Your task to perform on an android device: find which apps use the phone's location Image 0: 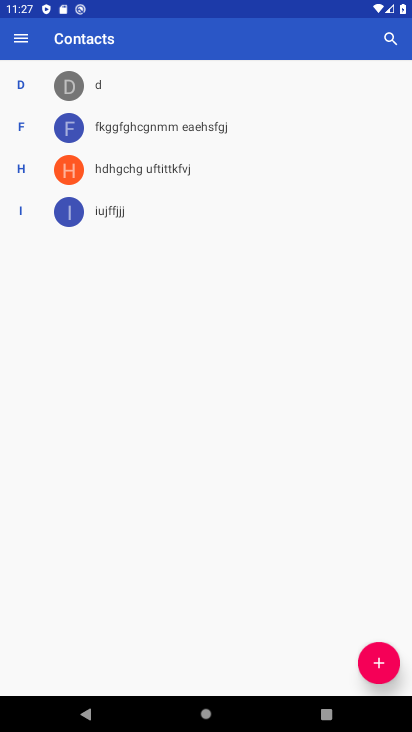
Step 0: press home button
Your task to perform on an android device: find which apps use the phone's location Image 1: 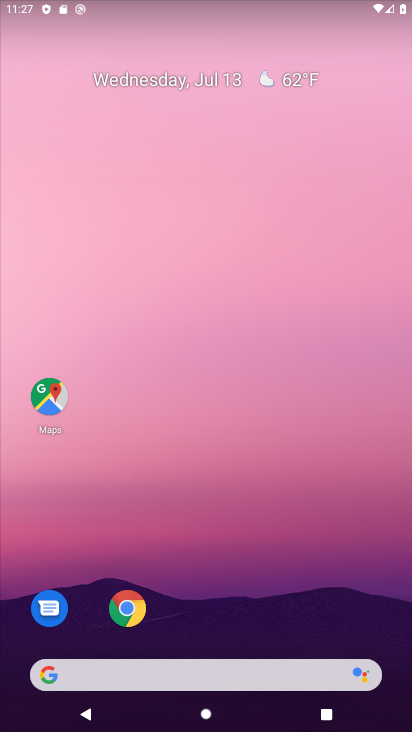
Step 1: drag from (239, 689) to (245, 140)
Your task to perform on an android device: find which apps use the phone's location Image 2: 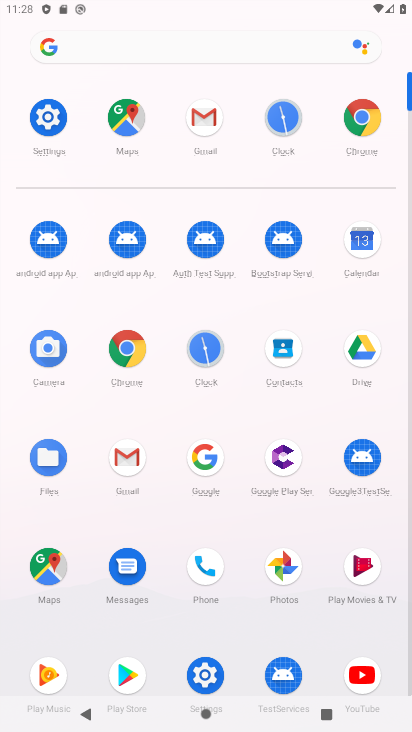
Step 2: click (43, 119)
Your task to perform on an android device: find which apps use the phone's location Image 3: 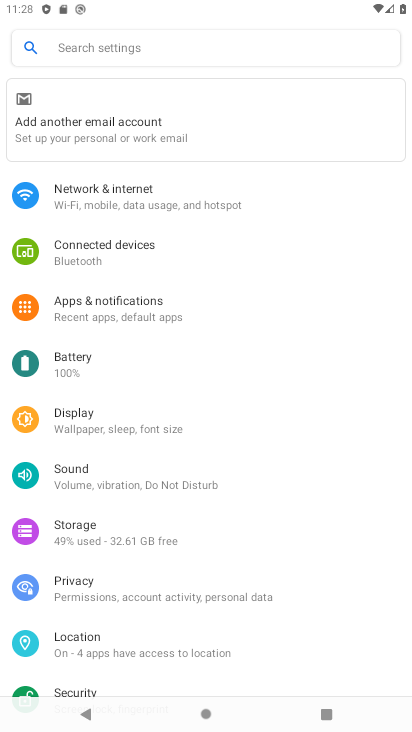
Step 3: click (82, 643)
Your task to perform on an android device: find which apps use the phone's location Image 4: 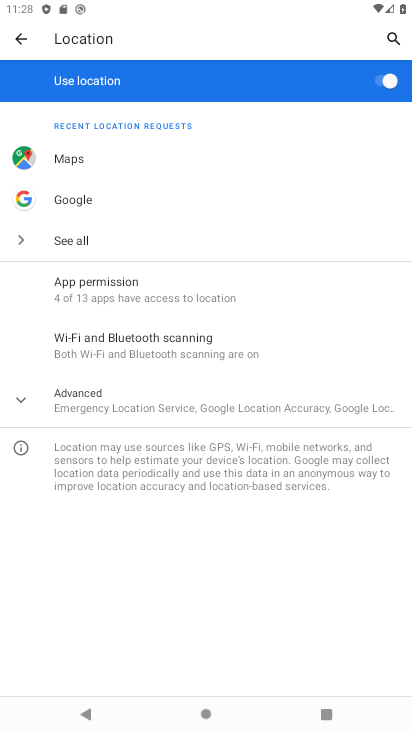
Step 4: click (90, 289)
Your task to perform on an android device: find which apps use the phone's location Image 5: 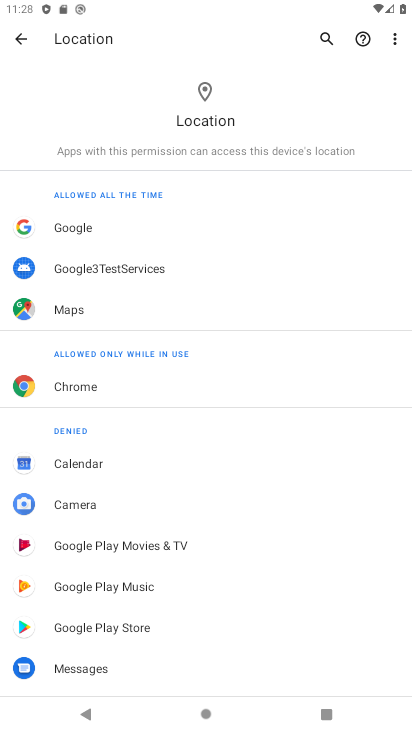
Step 5: task complete